Your task to perform on an android device: Go to notification settings Image 0: 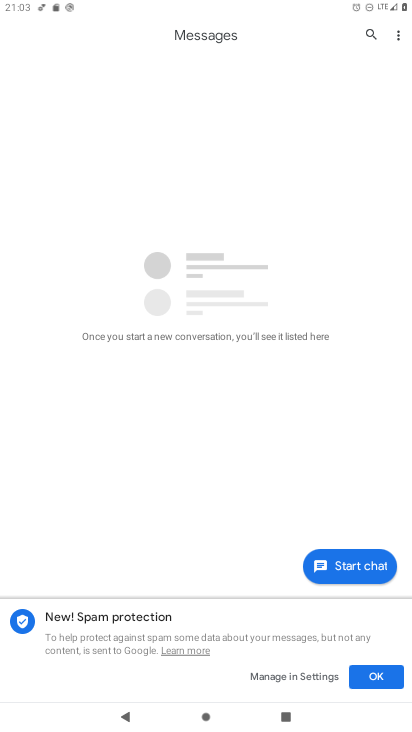
Step 0: press home button
Your task to perform on an android device: Go to notification settings Image 1: 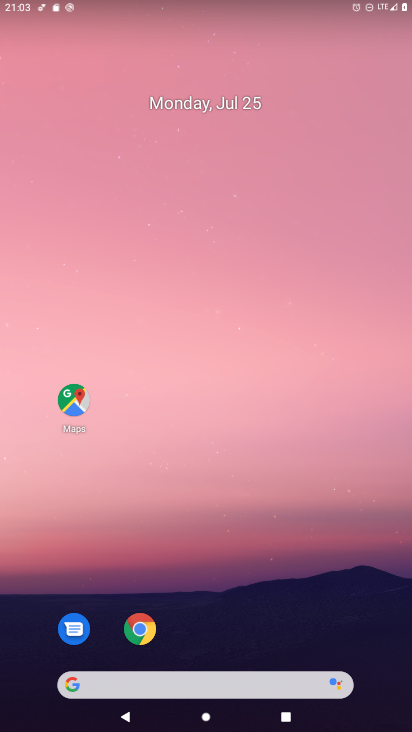
Step 1: drag from (190, 690) to (274, 19)
Your task to perform on an android device: Go to notification settings Image 2: 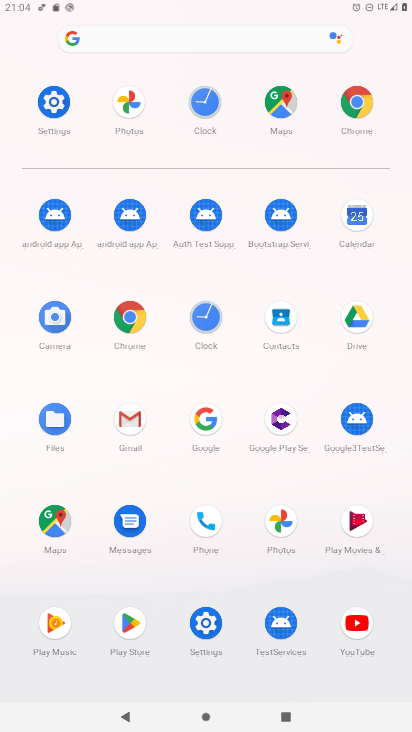
Step 2: click (55, 103)
Your task to perform on an android device: Go to notification settings Image 3: 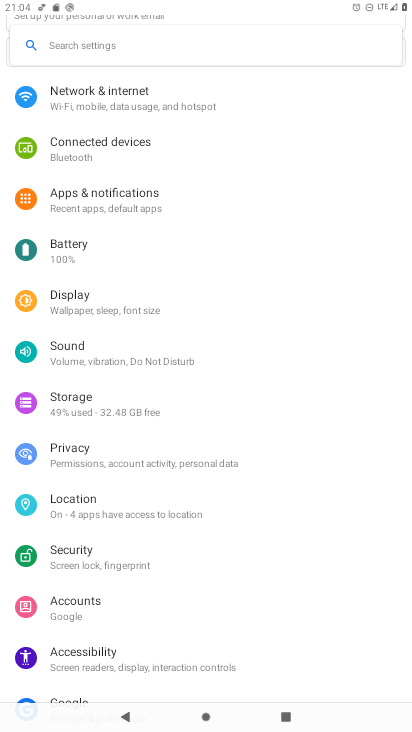
Step 3: click (131, 198)
Your task to perform on an android device: Go to notification settings Image 4: 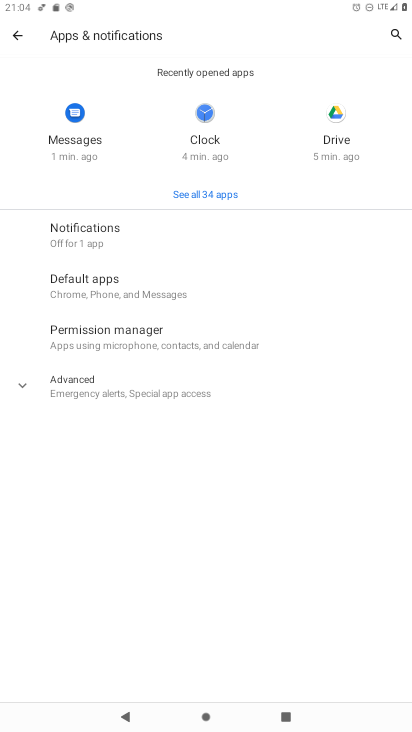
Step 4: click (106, 235)
Your task to perform on an android device: Go to notification settings Image 5: 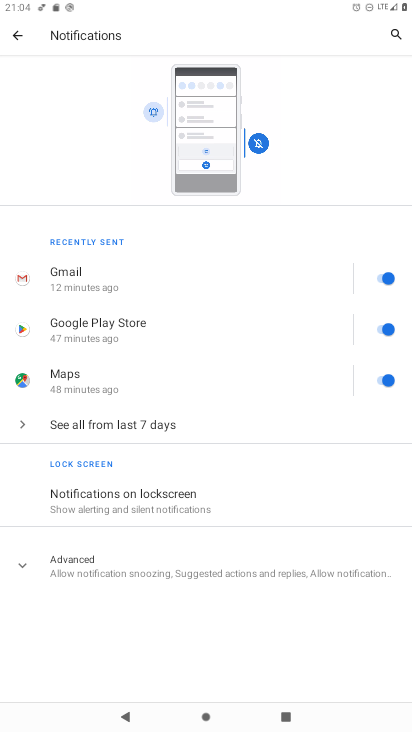
Step 5: click (392, 362)
Your task to perform on an android device: Go to notification settings Image 6: 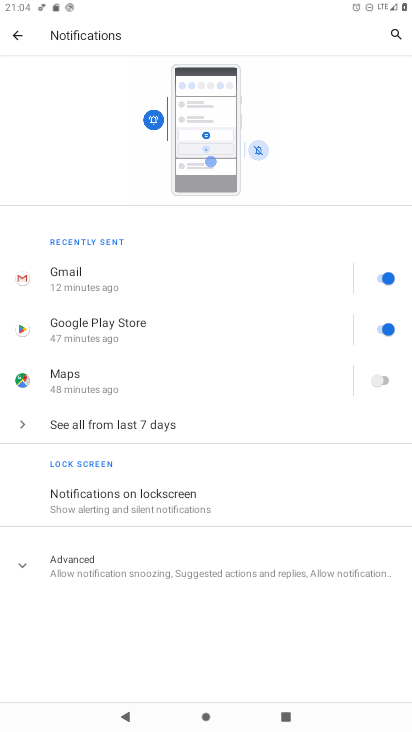
Step 6: task complete